Your task to perform on an android device: add a contact Image 0: 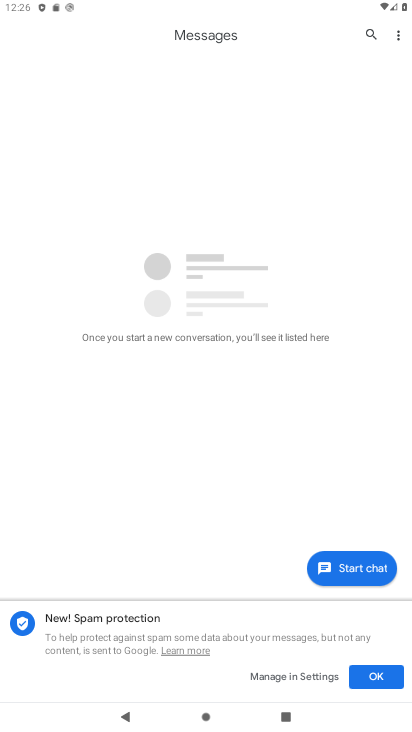
Step 0: press home button
Your task to perform on an android device: add a contact Image 1: 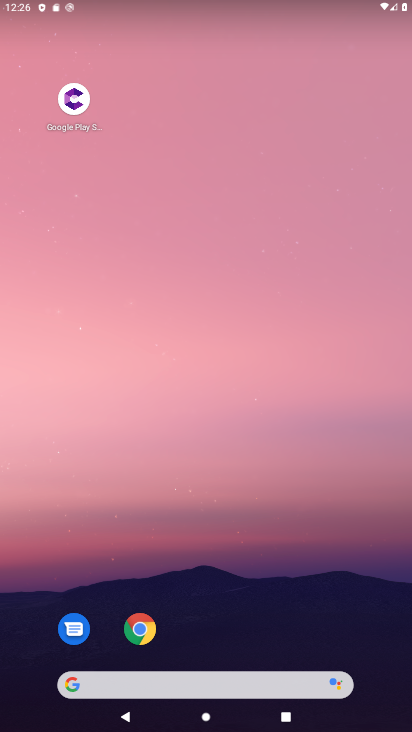
Step 1: drag from (226, 612) to (225, 199)
Your task to perform on an android device: add a contact Image 2: 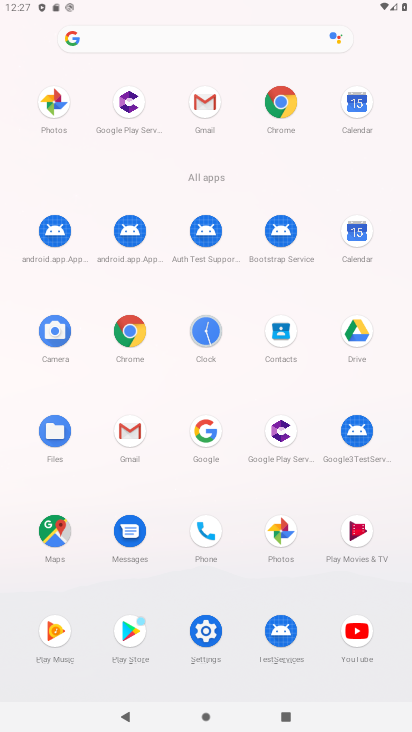
Step 2: click (287, 332)
Your task to perform on an android device: add a contact Image 3: 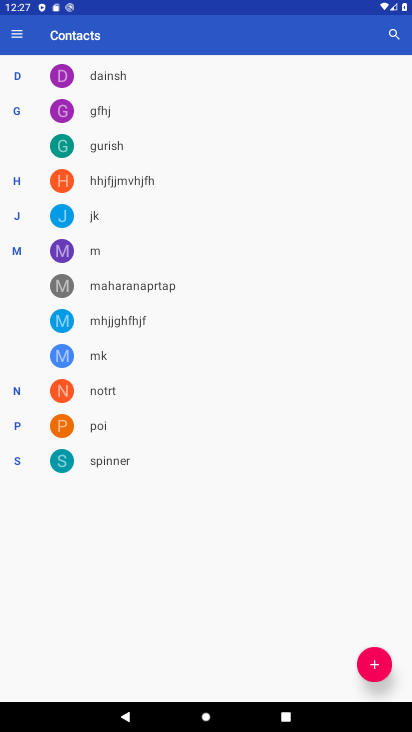
Step 3: click (370, 666)
Your task to perform on an android device: add a contact Image 4: 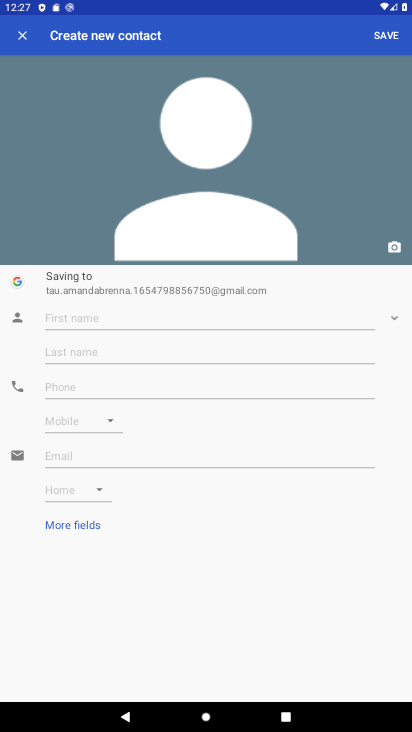
Step 4: click (98, 325)
Your task to perform on an android device: add a contact Image 5: 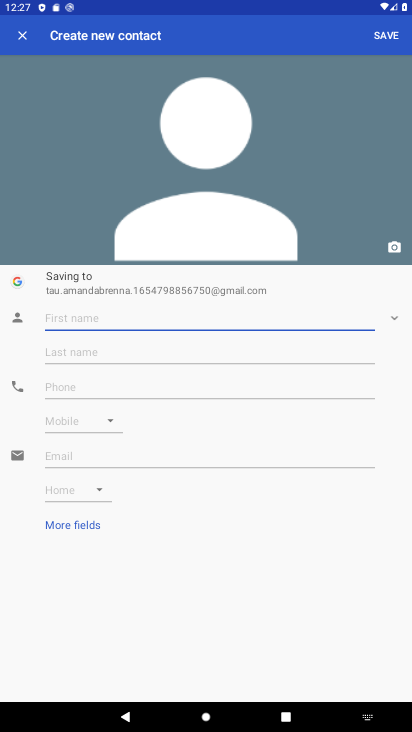
Step 5: type "popppp"
Your task to perform on an android device: add a contact Image 6: 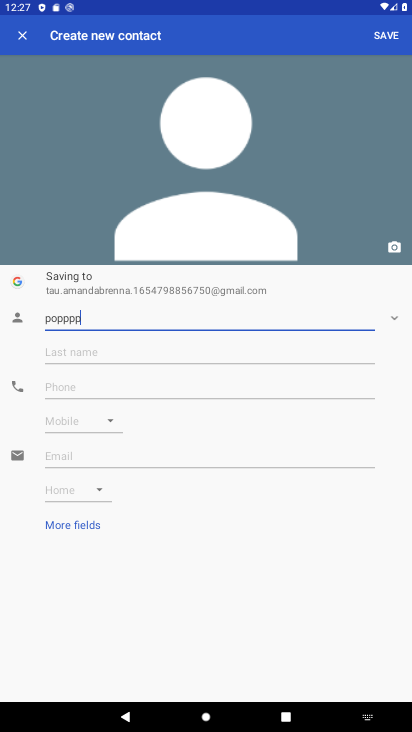
Step 6: click (95, 400)
Your task to perform on an android device: add a contact Image 7: 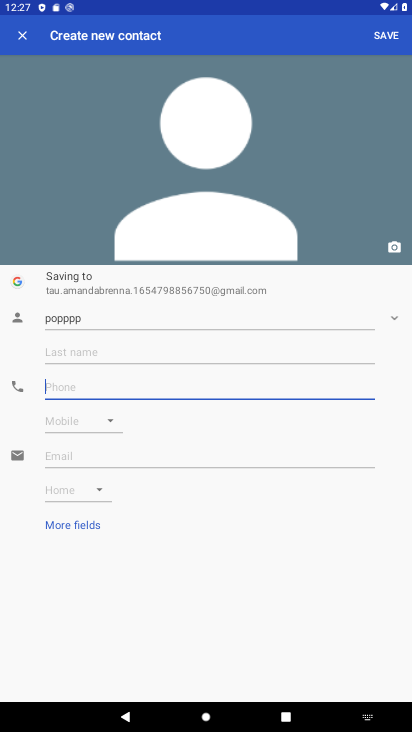
Step 7: type "8998998990"
Your task to perform on an android device: add a contact Image 8: 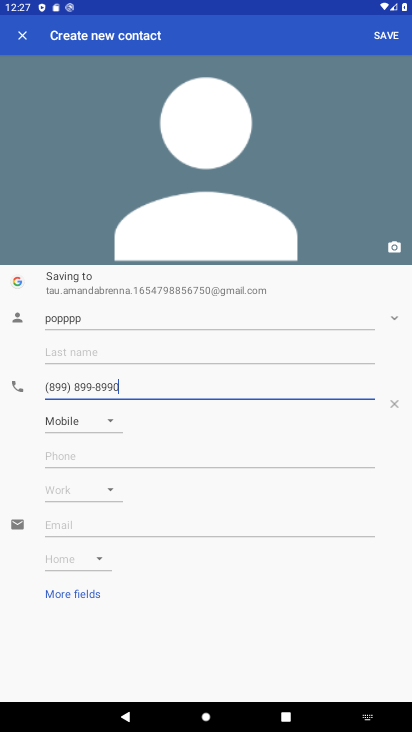
Step 8: click (381, 38)
Your task to perform on an android device: add a contact Image 9: 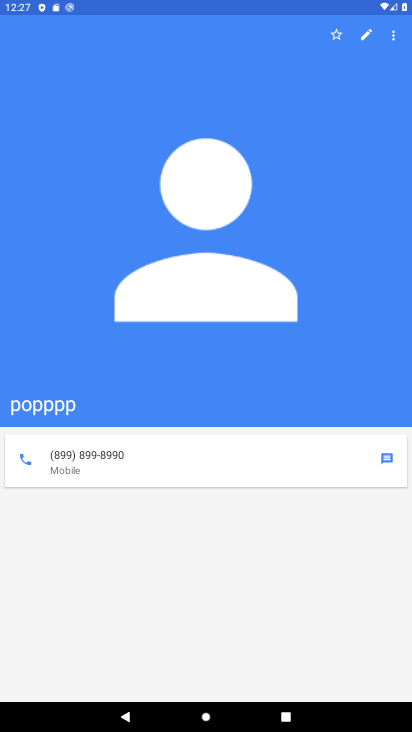
Step 9: task complete